Your task to perform on an android device: allow cookies in the chrome app Image 0: 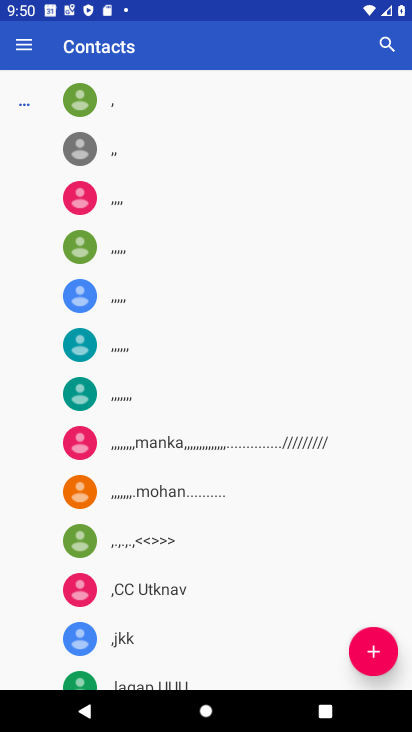
Step 0: press home button
Your task to perform on an android device: allow cookies in the chrome app Image 1: 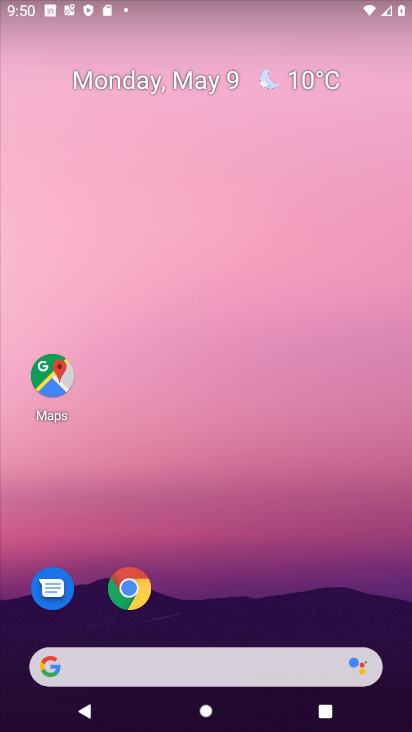
Step 1: drag from (185, 665) to (289, 91)
Your task to perform on an android device: allow cookies in the chrome app Image 2: 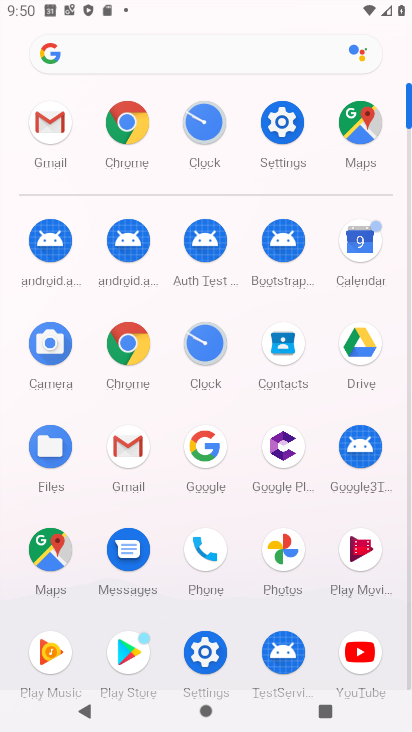
Step 2: click (133, 122)
Your task to perform on an android device: allow cookies in the chrome app Image 3: 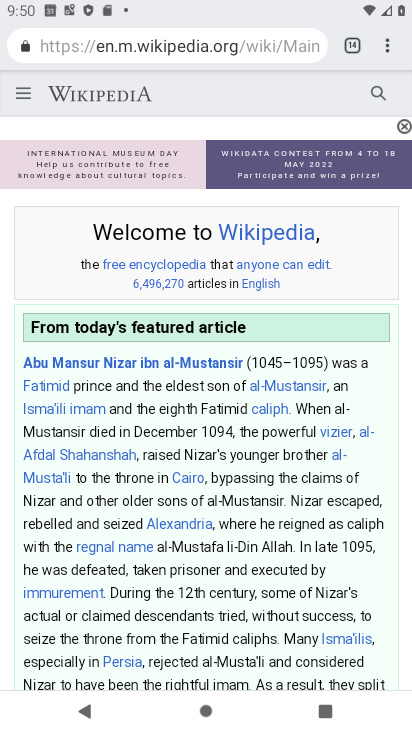
Step 3: drag from (383, 43) to (257, 557)
Your task to perform on an android device: allow cookies in the chrome app Image 4: 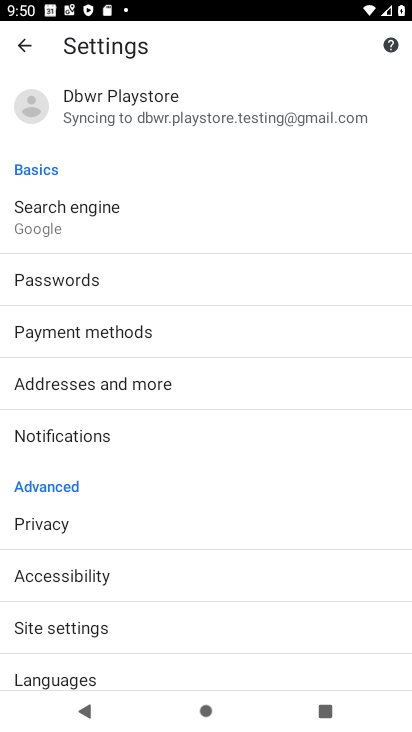
Step 4: click (83, 627)
Your task to perform on an android device: allow cookies in the chrome app Image 5: 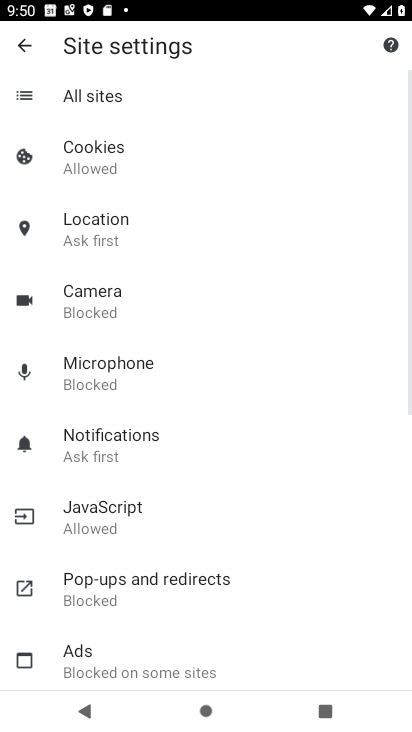
Step 5: click (116, 154)
Your task to perform on an android device: allow cookies in the chrome app Image 6: 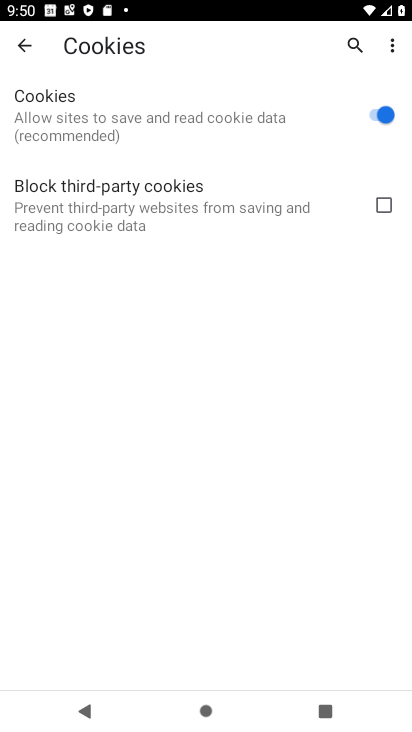
Step 6: task complete